Your task to perform on an android device: check the backup settings in the google photos Image 0: 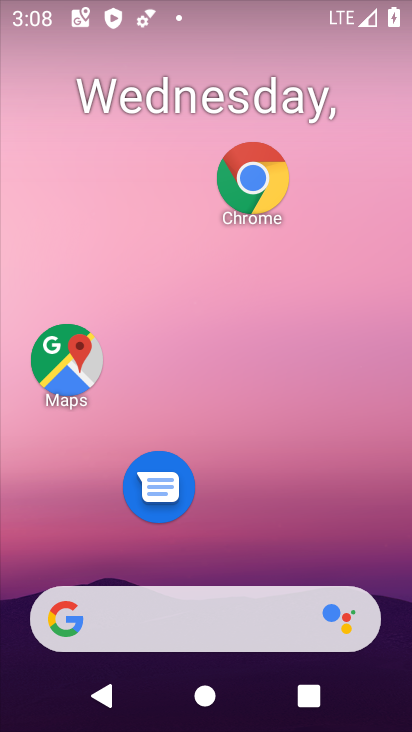
Step 0: drag from (301, 523) to (329, 62)
Your task to perform on an android device: check the backup settings in the google photos Image 1: 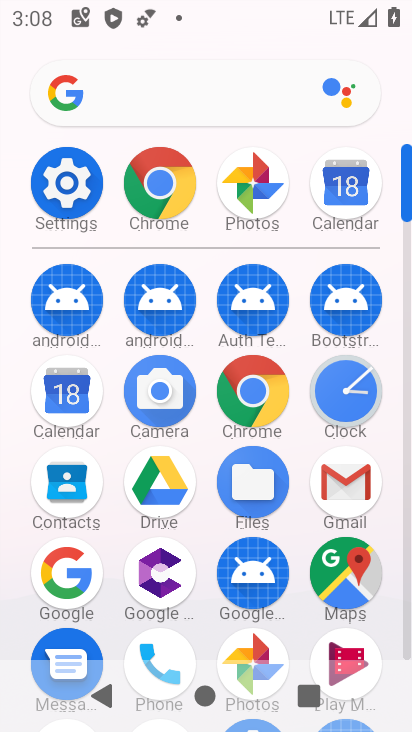
Step 1: drag from (209, 534) to (215, 246)
Your task to perform on an android device: check the backup settings in the google photos Image 2: 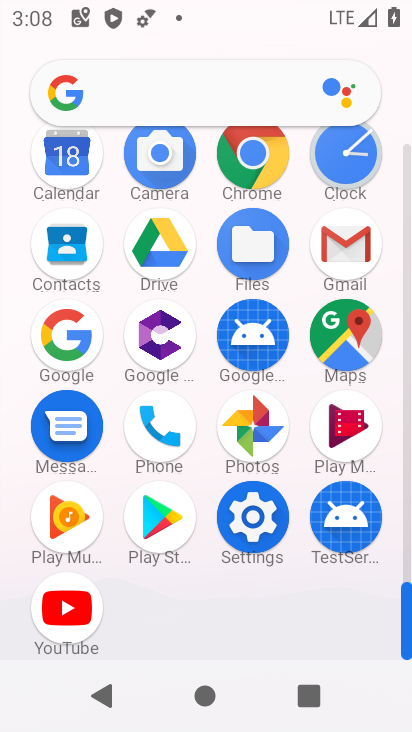
Step 2: click (246, 431)
Your task to perform on an android device: check the backup settings in the google photos Image 3: 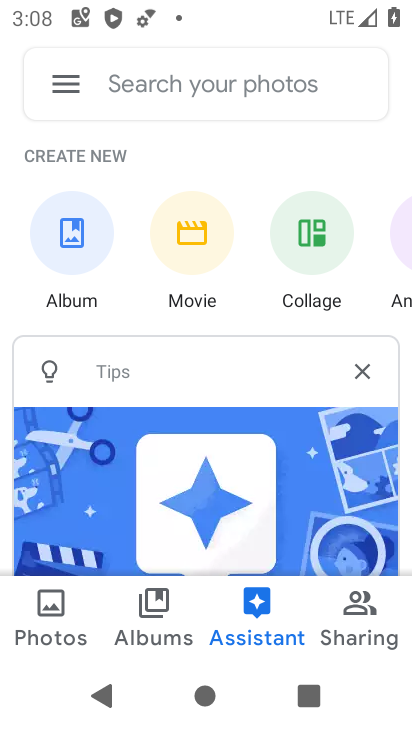
Step 3: click (59, 80)
Your task to perform on an android device: check the backup settings in the google photos Image 4: 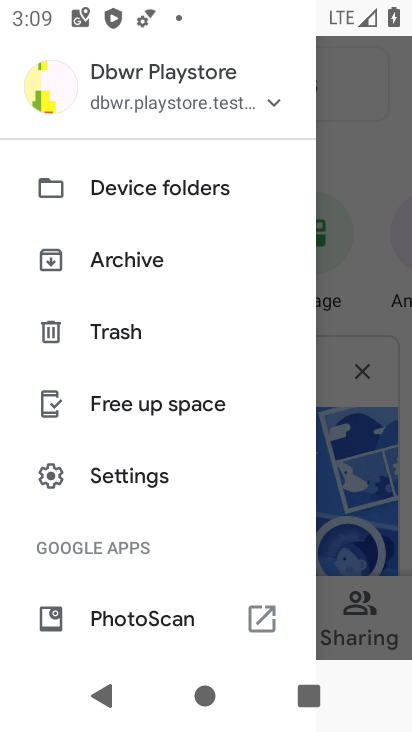
Step 4: click (148, 462)
Your task to perform on an android device: check the backup settings in the google photos Image 5: 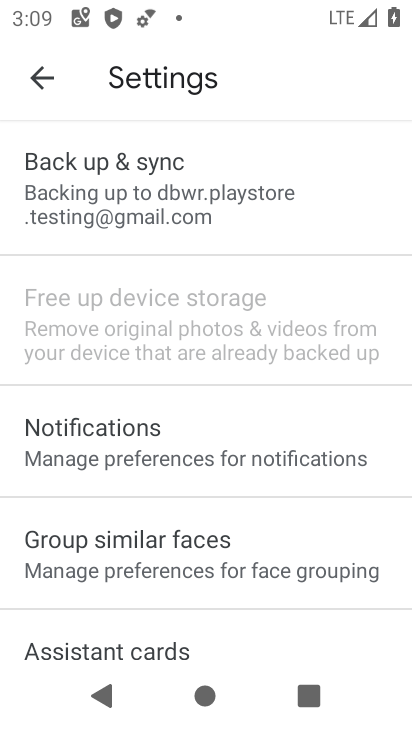
Step 5: click (85, 169)
Your task to perform on an android device: check the backup settings in the google photos Image 6: 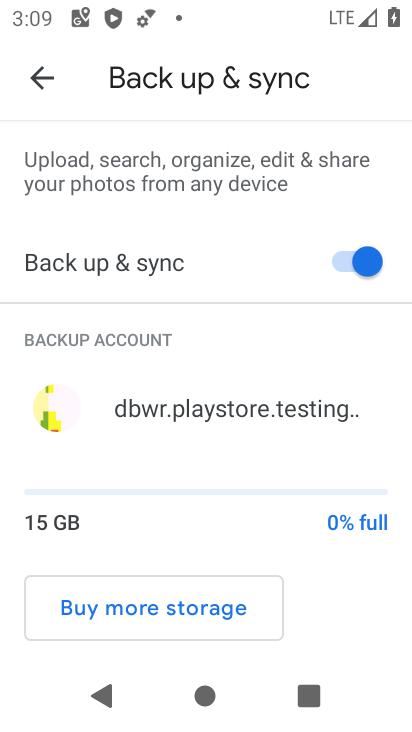
Step 6: task complete